Your task to perform on an android device: change notification settings in the gmail app Image 0: 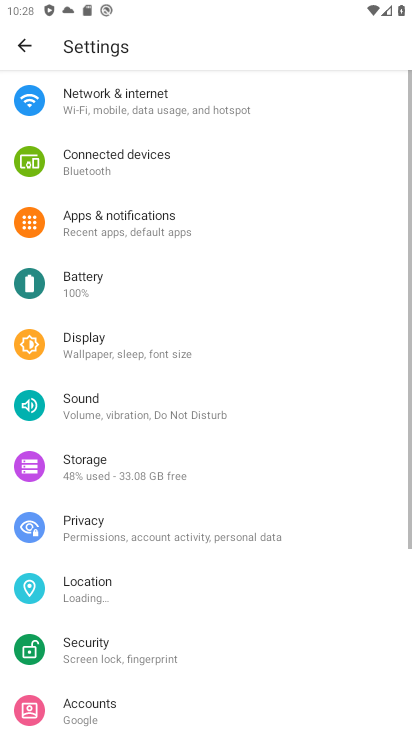
Step 0: press home button
Your task to perform on an android device: change notification settings in the gmail app Image 1: 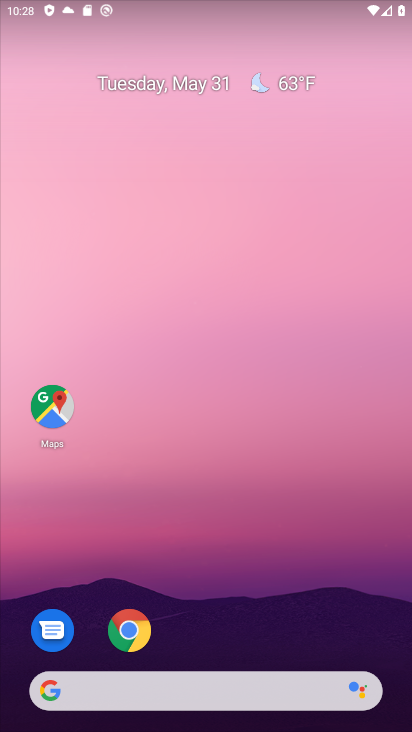
Step 1: drag from (191, 641) to (164, 83)
Your task to perform on an android device: change notification settings in the gmail app Image 2: 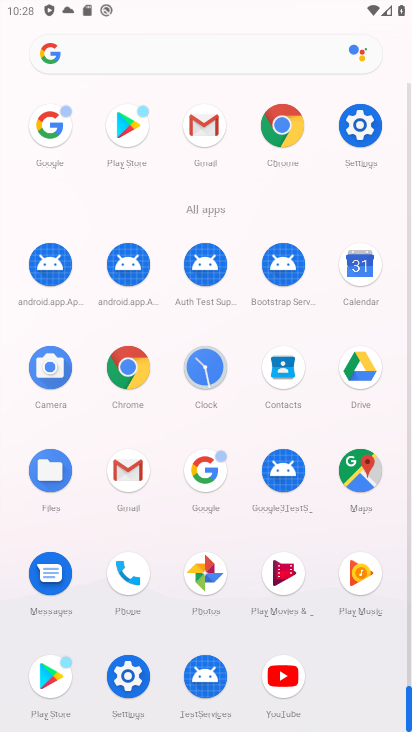
Step 2: click (138, 474)
Your task to perform on an android device: change notification settings in the gmail app Image 3: 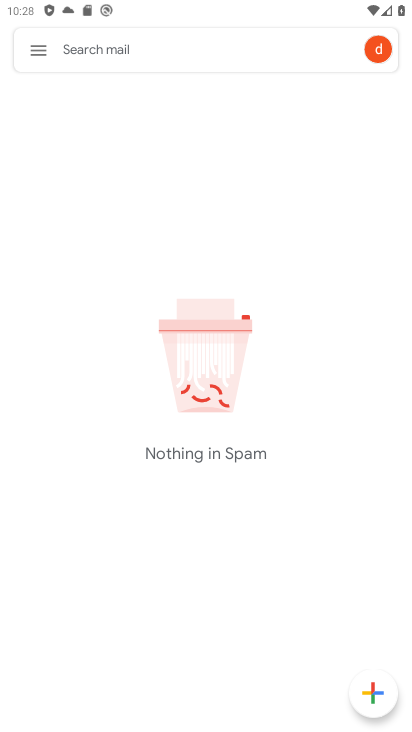
Step 3: click (39, 54)
Your task to perform on an android device: change notification settings in the gmail app Image 4: 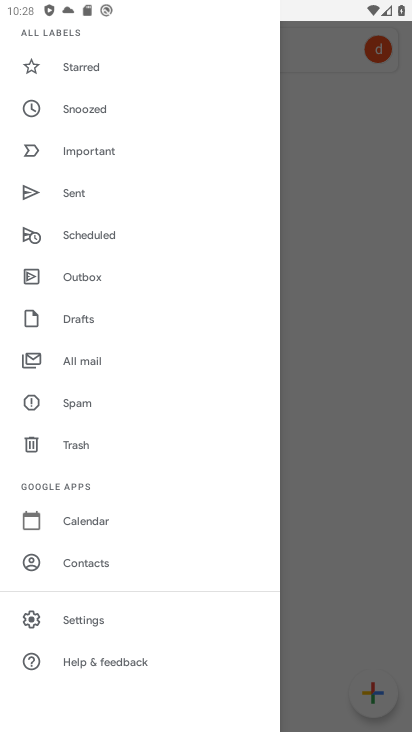
Step 4: click (88, 631)
Your task to perform on an android device: change notification settings in the gmail app Image 5: 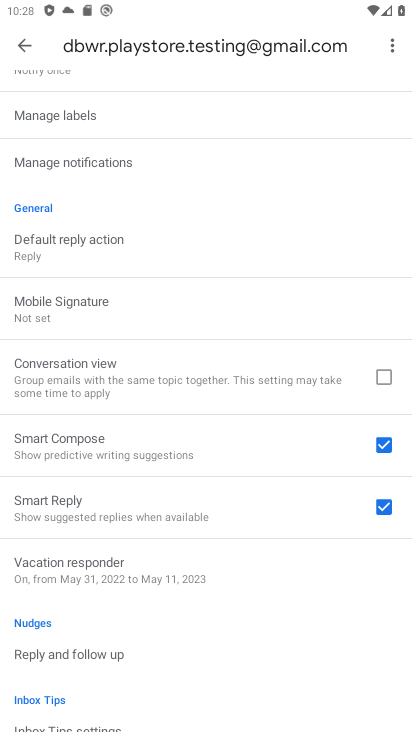
Step 5: click (100, 177)
Your task to perform on an android device: change notification settings in the gmail app Image 6: 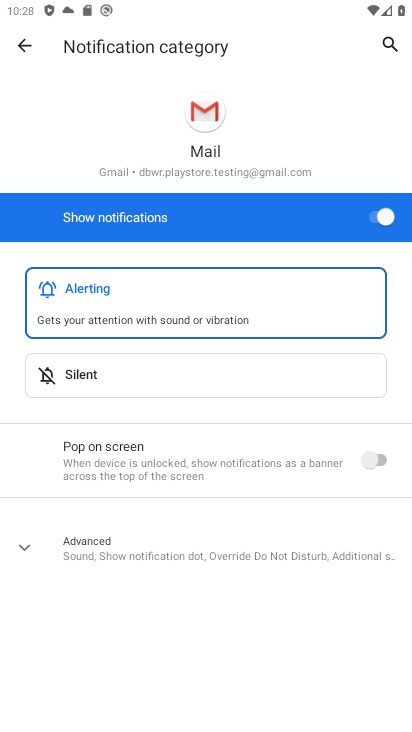
Step 6: click (379, 461)
Your task to perform on an android device: change notification settings in the gmail app Image 7: 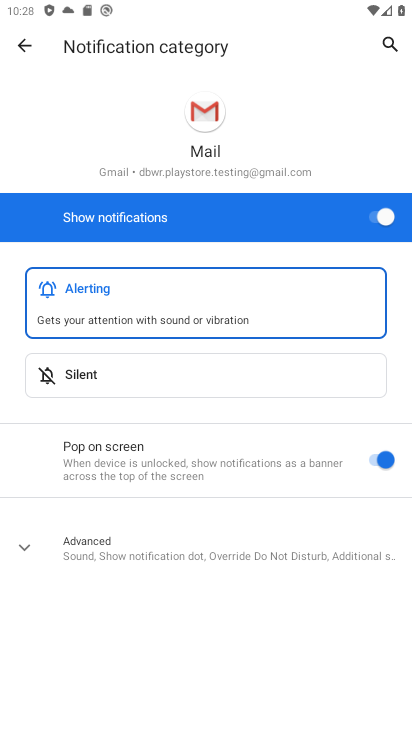
Step 7: task complete